Your task to perform on an android device: Show me popular games on the Play Store Image 0: 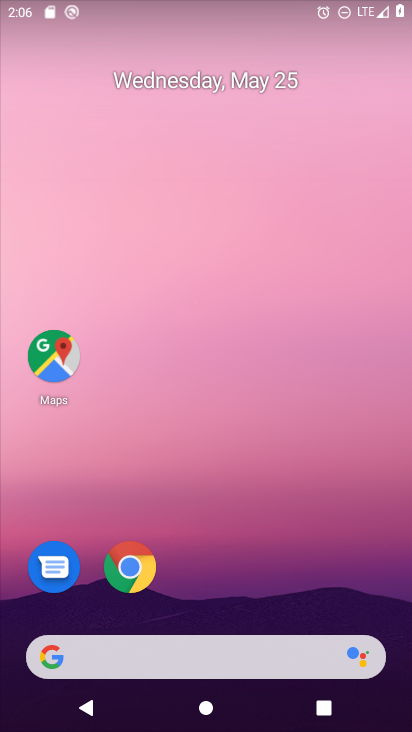
Step 0: drag from (391, 720) to (388, 330)
Your task to perform on an android device: Show me popular games on the Play Store Image 1: 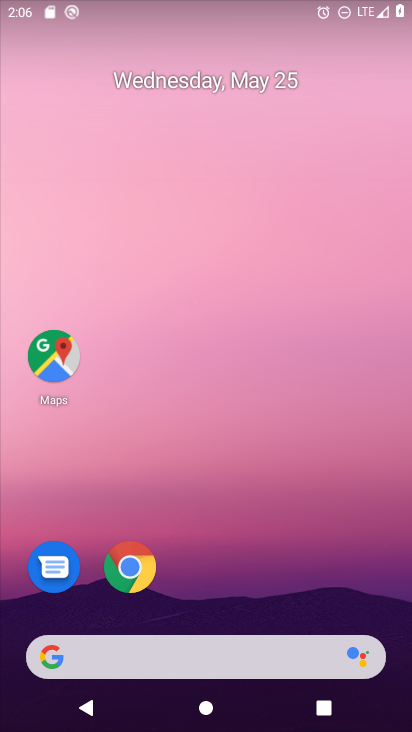
Step 1: drag from (395, 690) to (387, 248)
Your task to perform on an android device: Show me popular games on the Play Store Image 2: 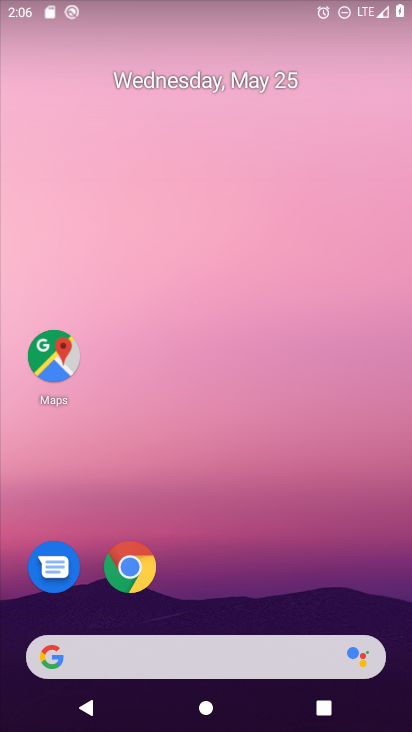
Step 2: drag from (400, 721) to (411, 75)
Your task to perform on an android device: Show me popular games on the Play Store Image 3: 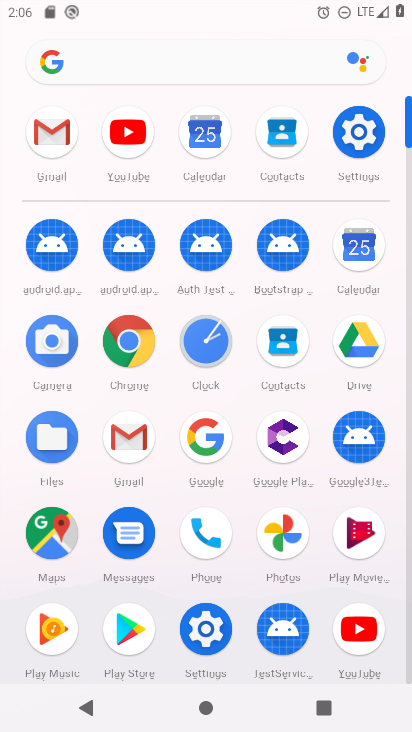
Step 3: click (145, 607)
Your task to perform on an android device: Show me popular games on the Play Store Image 4: 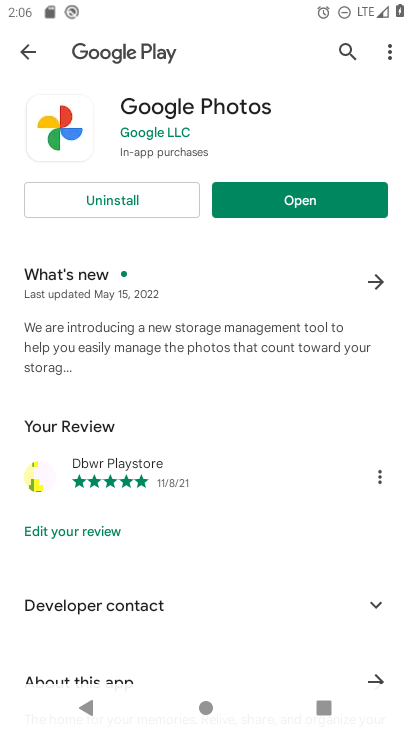
Step 4: press back button
Your task to perform on an android device: Show me popular games on the Play Store Image 5: 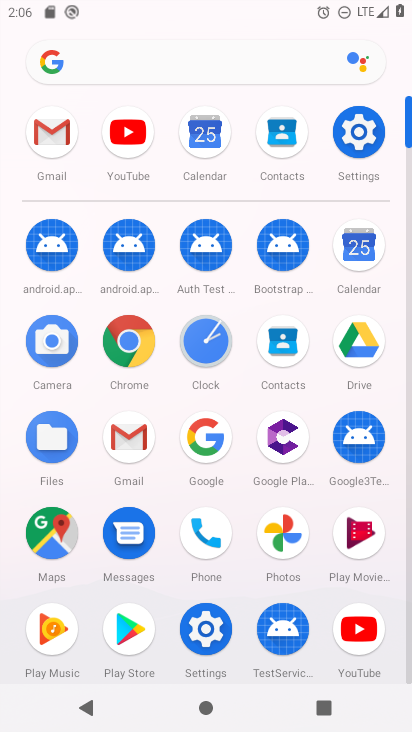
Step 5: click (115, 634)
Your task to perform on an android device: Show me popular games on the Play Store Image 6: 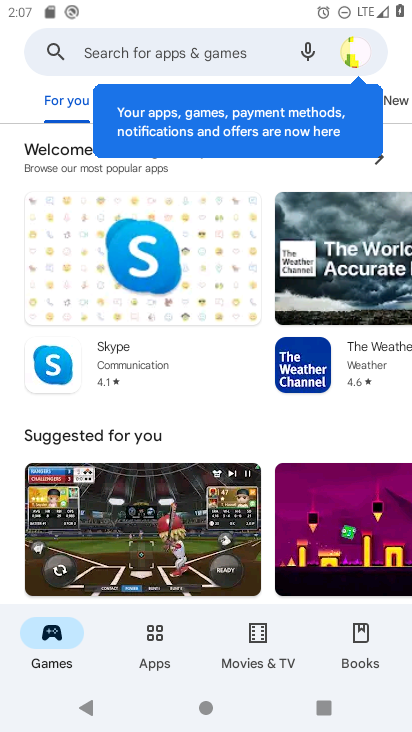
Step 6: click (261, 48)
Your task to perform on an android device: Show me popular games on the Play Store Image 7: 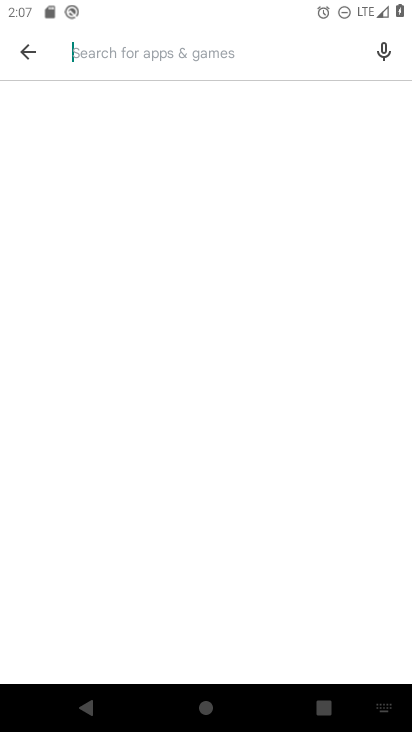
Step 7: type "popular games"
Your task to perform on an android device: Show me popular games on the Play Store Image 8: 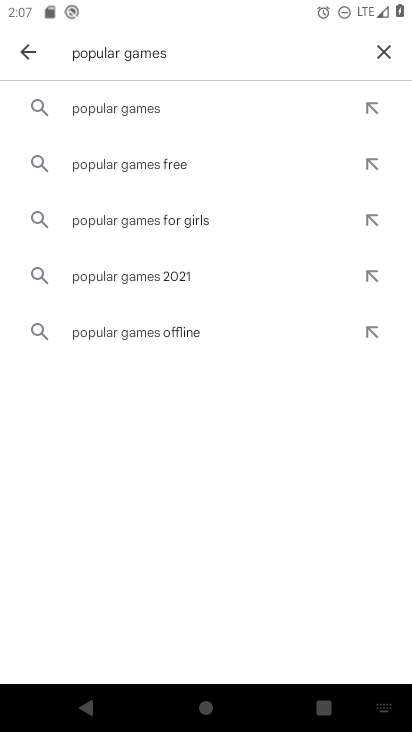
Step 8: click (103, 107)
Your task to perform on an android device: Show me popular games on the Play Store Image 9: 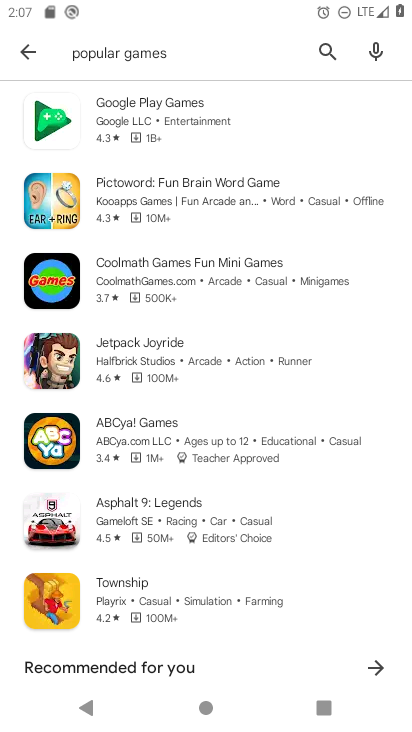
Step 9: task complete